Your task to perform on an android device: change the clock style Image 0: 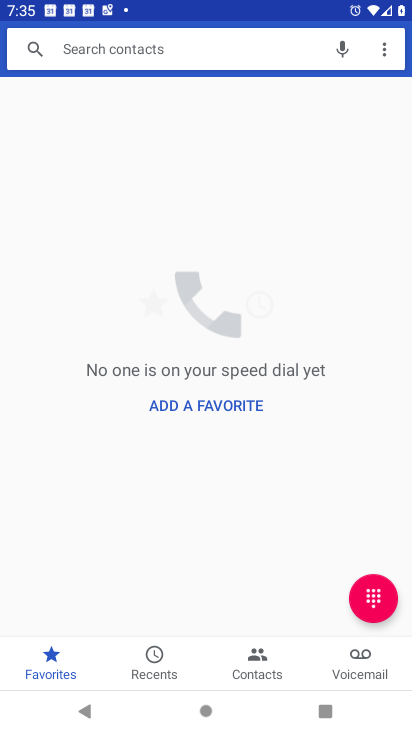
Step 0: press home button
Your task to perform on an android device: change the clock style Image 1: 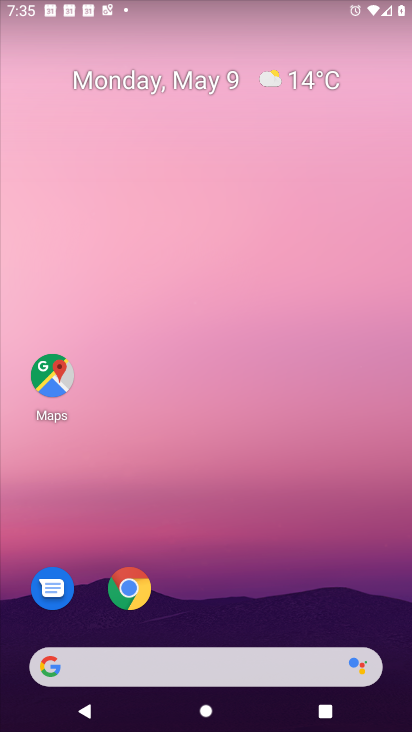
Step 1: drag from (357, 601) to (328, 100)
Your task to perform on an android device: change the clock style Image 2: 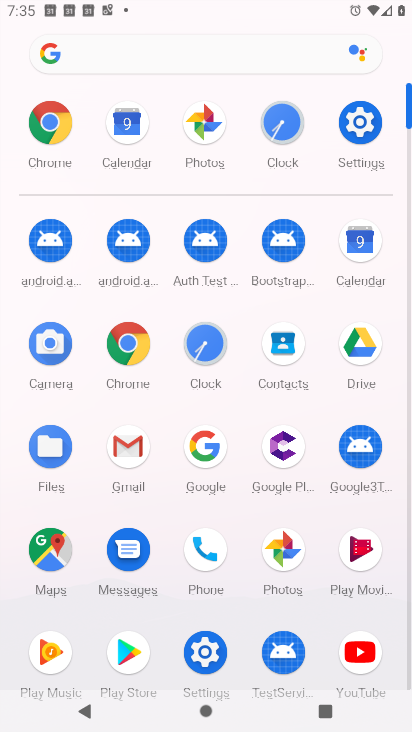
Step 2: click (285, 124)
Your task to perform on an android device: change the clock style Image 3: 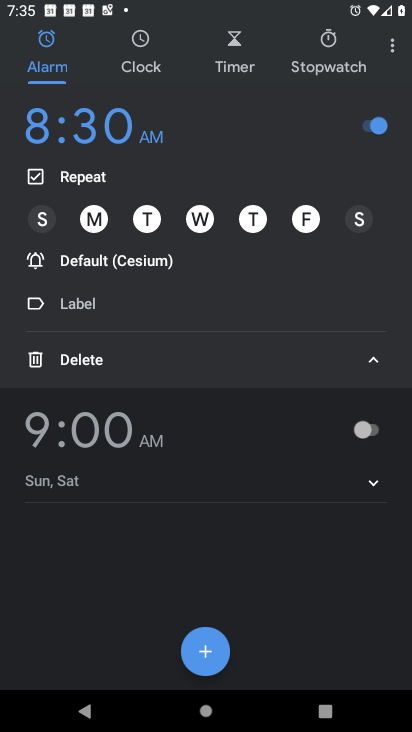
Step 3: click (386, 41)
Your task to perform on an android device: change the clock style Image 4: 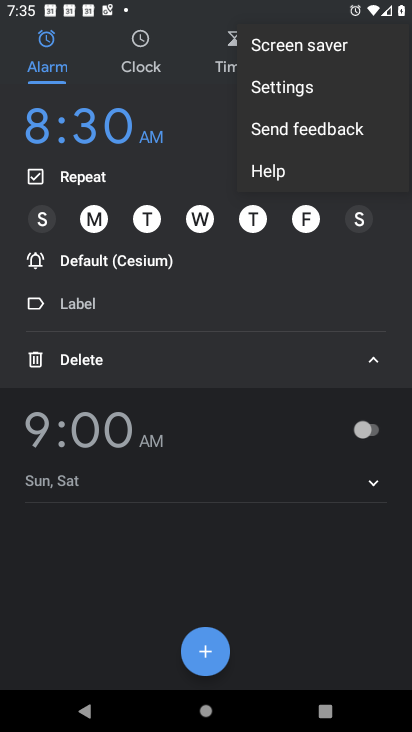
Step 4: click (326, 93)
Your task to perform on an android device: change the clock style Image 5: 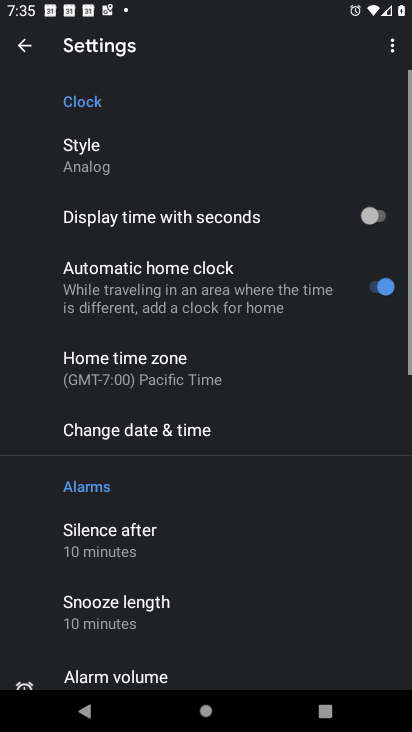
Step 5: click (121, 172)
Your task to perform on an android device: change the clock style Image 6: 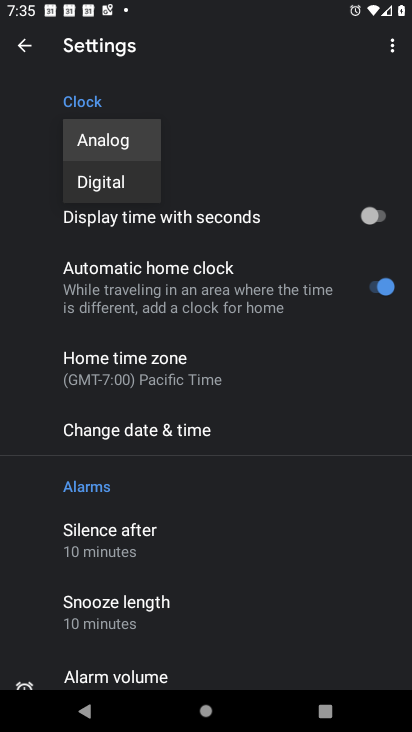
Step 6: click (121, 172)
Your task to perform on an android device: change the clock style Image 7: 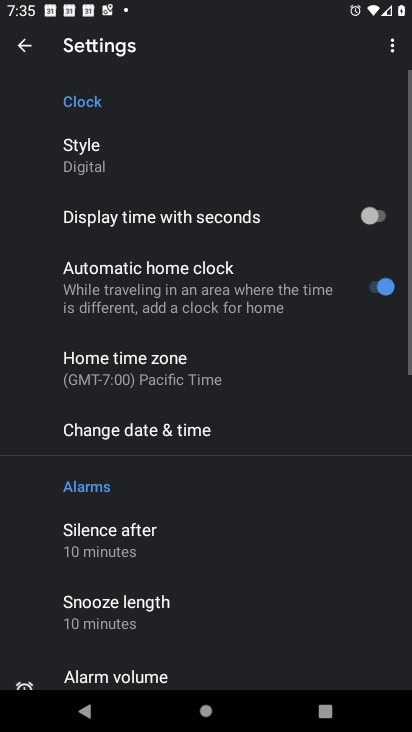
Step 7: task complete